Your task to perform on an android device: Open eBay Image 0: 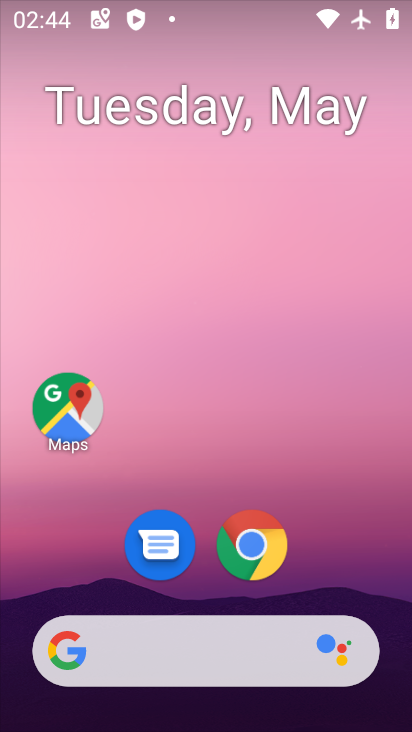
Step 0: click (256, 544)
Your task to perform on an android device: Open eBay Image 1: 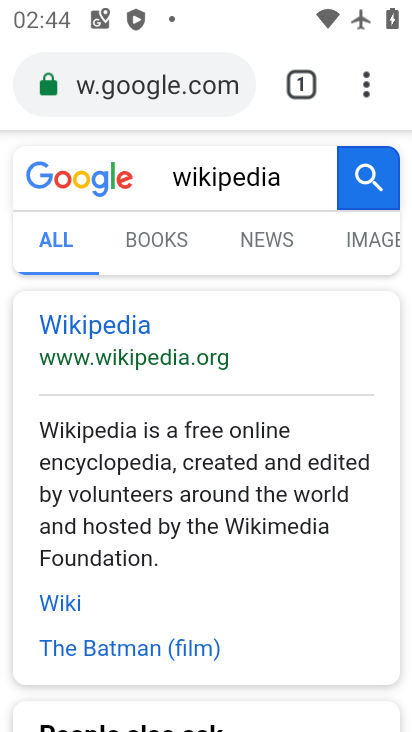
Step 1: click (145, 81)
Your task to perform on an android device: Open eBay Image 2: 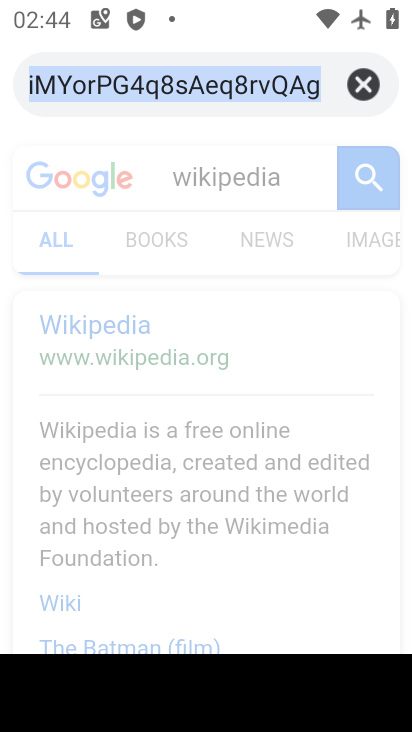
Step 2: click (360, 81)
Your task to perform on an android device: Open eBay Image 3: 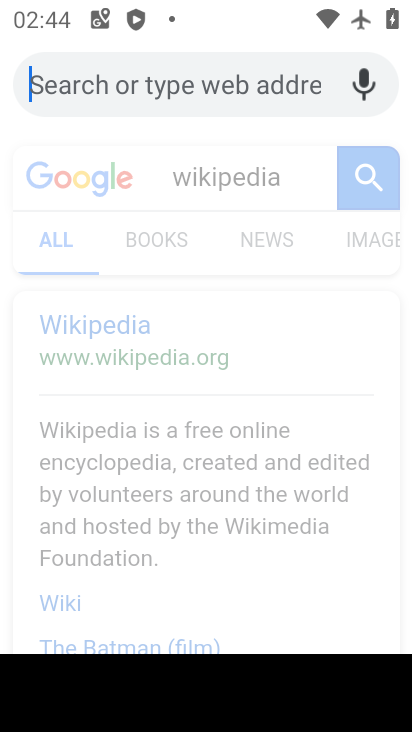
Step 3: type "ebay"
Your task to perform on an android device: Open eBay Image 4: 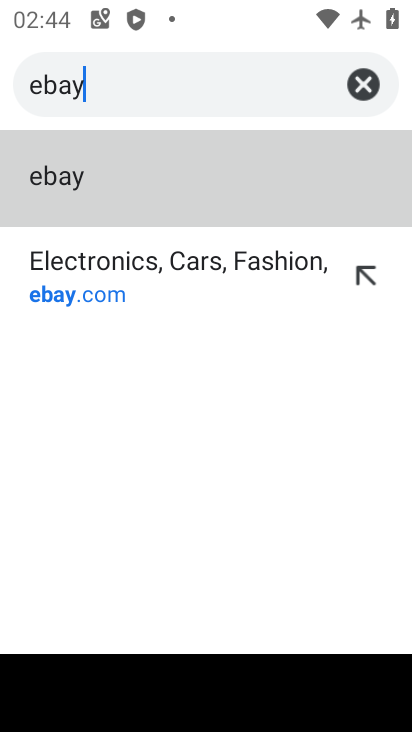
Step 4: click (55, 175)
Your task to perform on an android device: Open eBay Image 5: 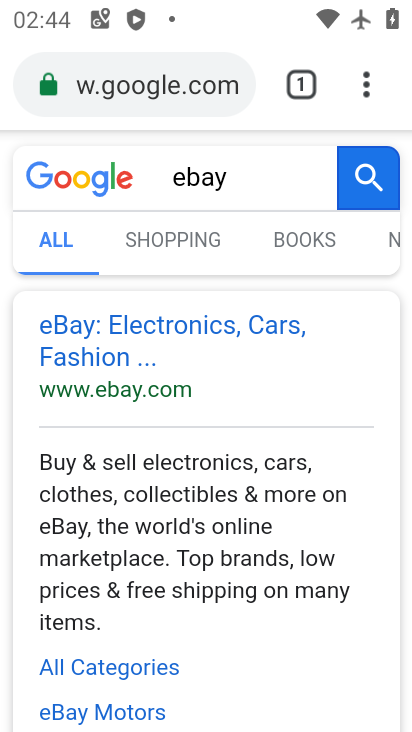
Step 5: click (91, 382)
Your task to perform on an android device: Open eBay Image 6: 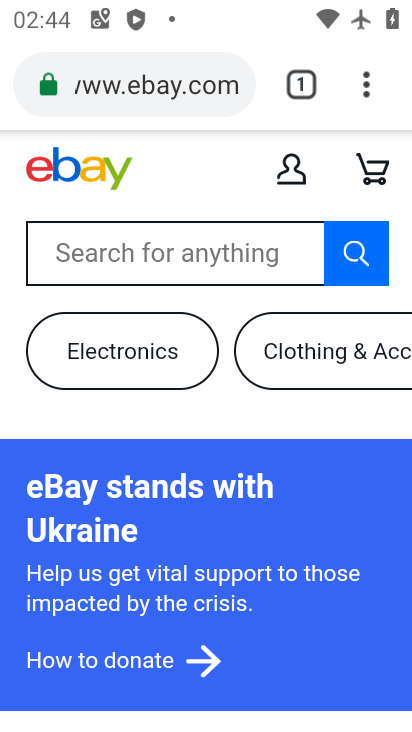
Step 6: task complete